Your task to perform on an android device: Open privacy settings Image 0: 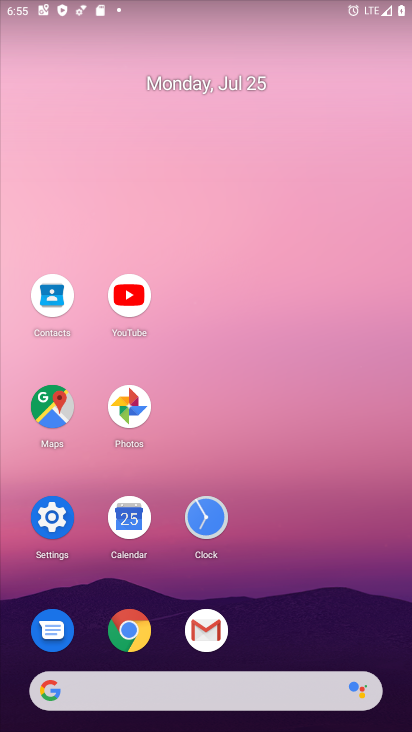
Step 0: click (53, 517)
Your task to perform on an android device: Open privacy settings Image 1: 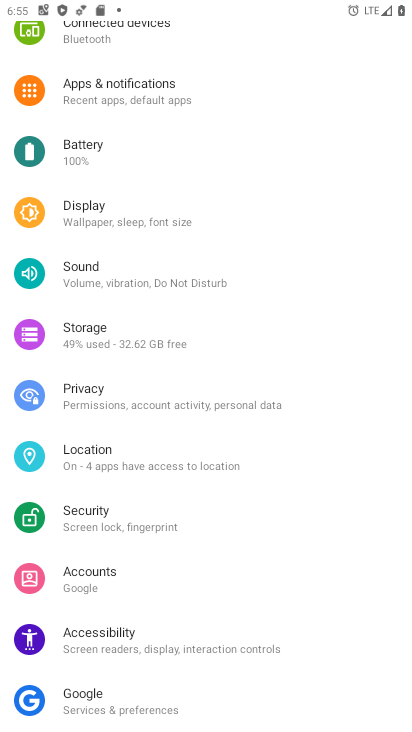
Step 1: click (77, 390)
Your task to perform on an android device: Open privacy settings Image 2: 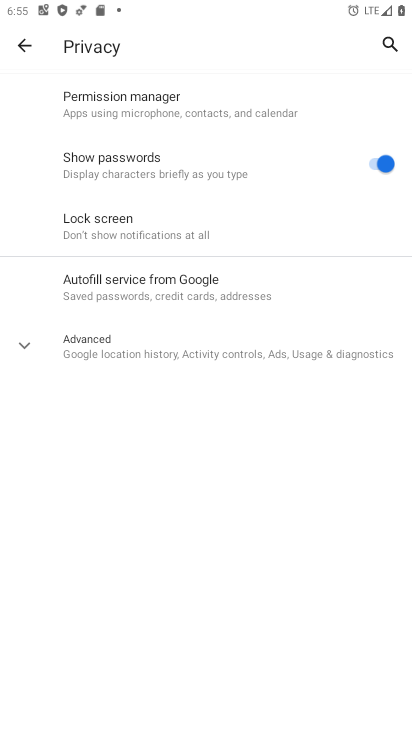
Step 2: task complete